Your task to perform on an android device: turn on the 24-hour format for clock Image 0: 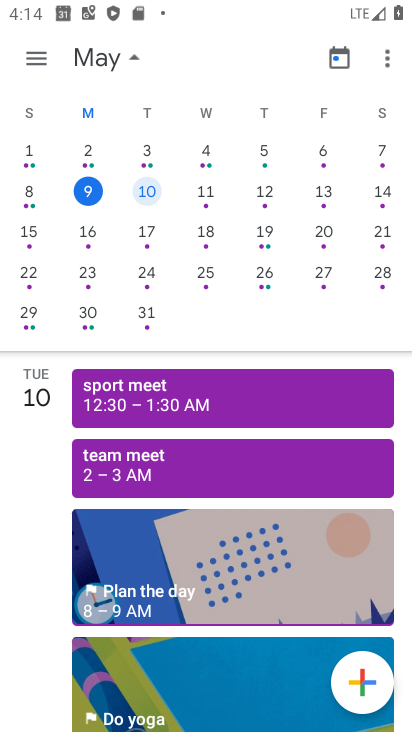
Step 0: press home button
Your task to perform on an android device: turn on the 24-hour format for clock Image 1: 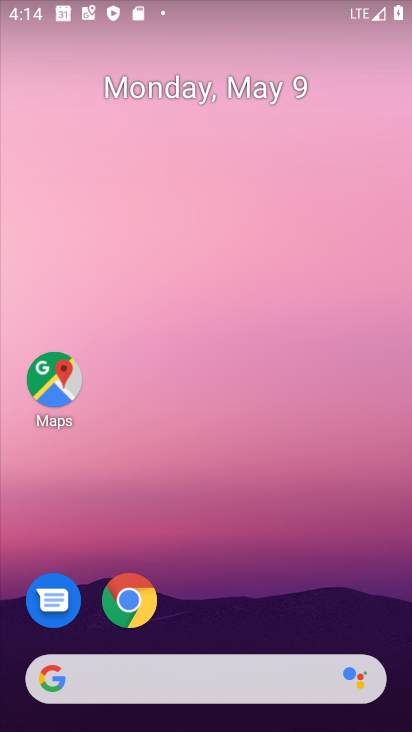
Step 1: drag from (284, 635) to (211, 39)
Your task to perform on an android device: turn on the 24-hour format for clock Image 2: 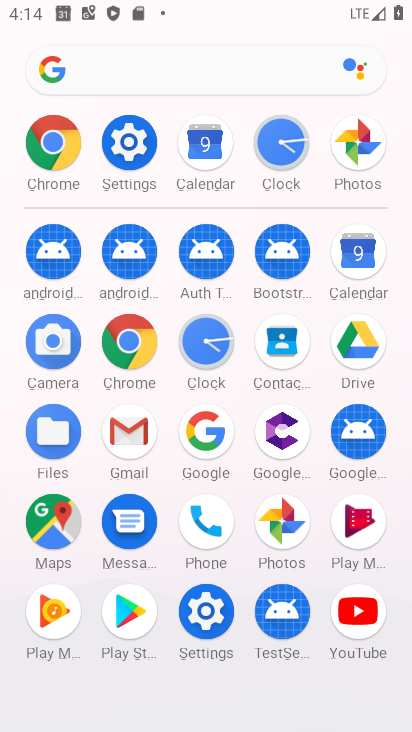
Step 2: click (204, 342)
Your task to perform on an android device: turn on the 24-hour format for clock Image 3: 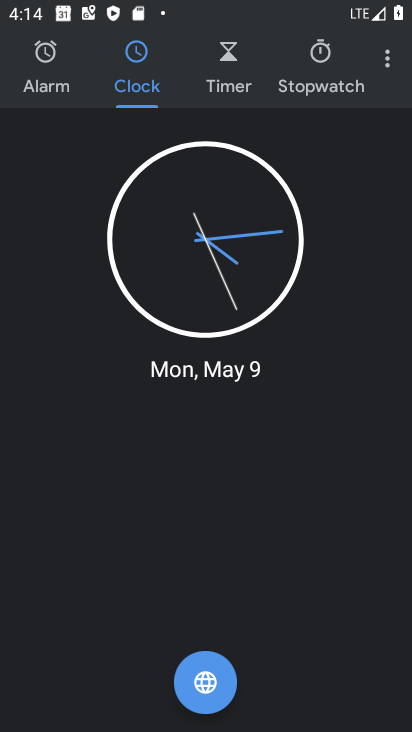
Step 3: click (387, 65)
Your task to perform on an android device: turn on the 24-hour format for clock Image 4: 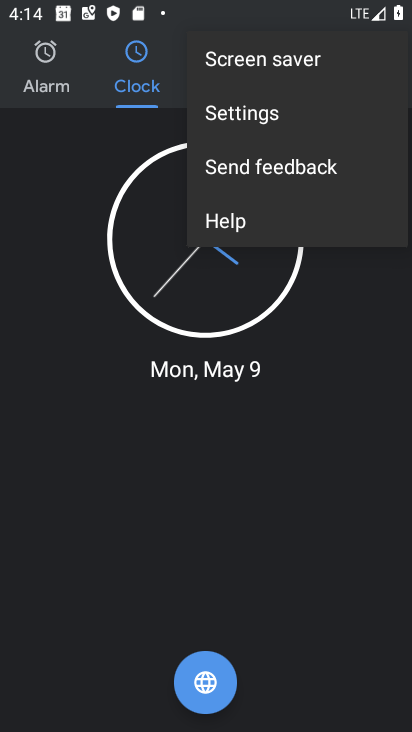
Step 4: click (257, 123)
Your task to perform on an android device: turn on the 24-hour format for clock Image 5: 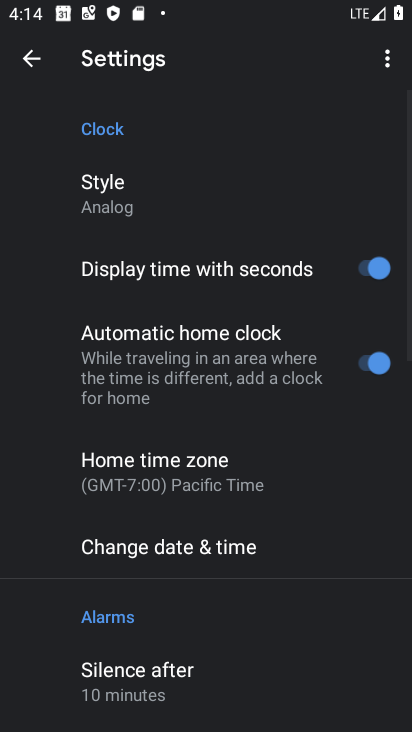
Step 5: click (206, 544)
Your task to perform on an android device: turn on the 24-hour format for clock Image 6: 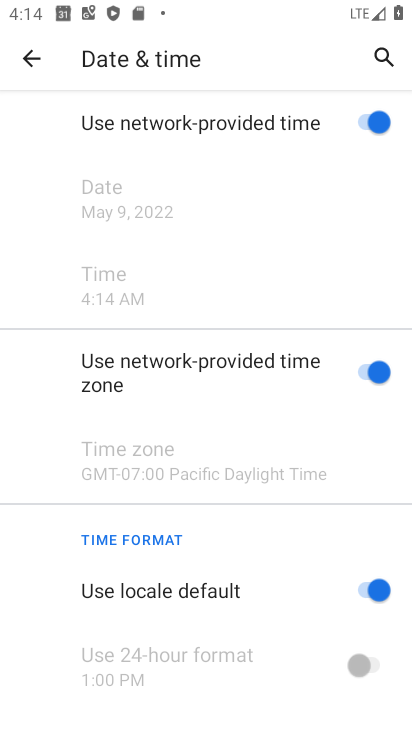
Step 6: drag from (280, 670) to (242, 185)
Your task to perform on an android device: turn on the 24-hour format for clock Image 7: 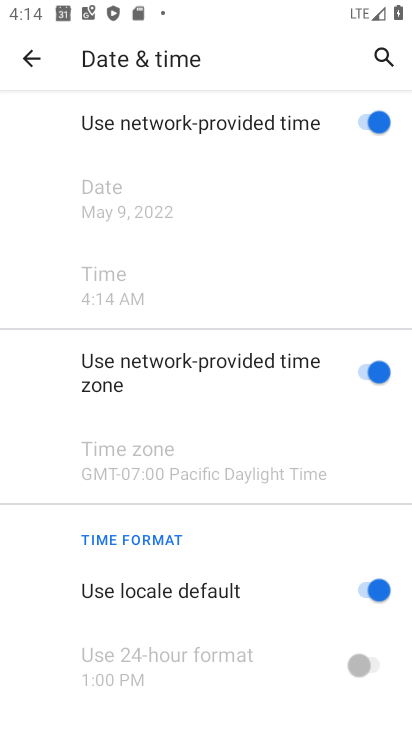
Step 7: drag from (233, 221) to (241, 679)
Your task to perform on an android device: turn on the 24-hour format for clock Image 8: 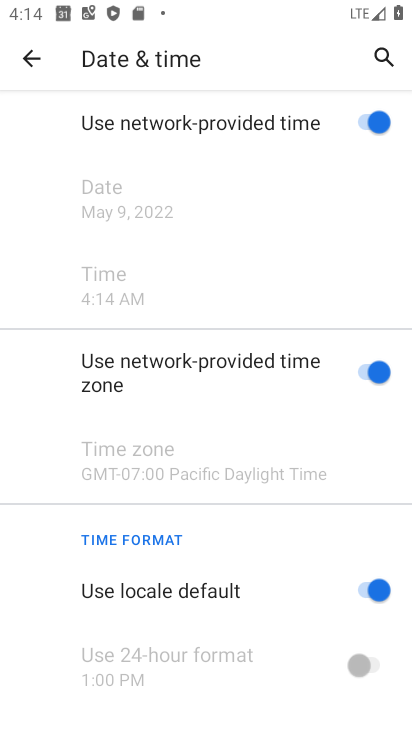
Step 8: drag from (206, 672) to (180, 155)
Your task to perform on an android device: turn on the 24-hour format for clock Image 9: 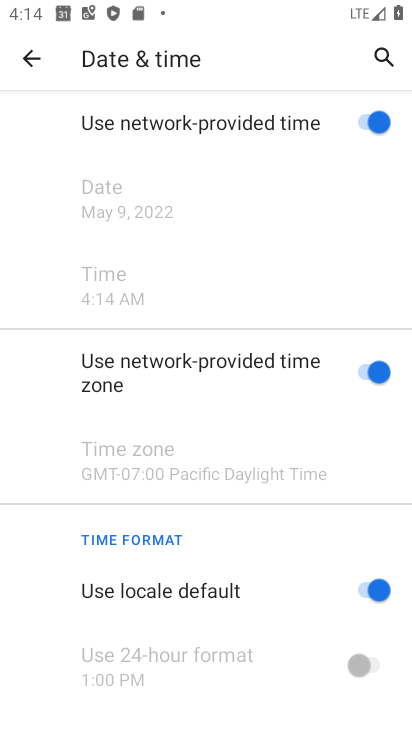
Step 9: drag from (167, 169) to (175, 652)
Your task to perform on an android device: turn on the 24-hour format for clock Image 10: 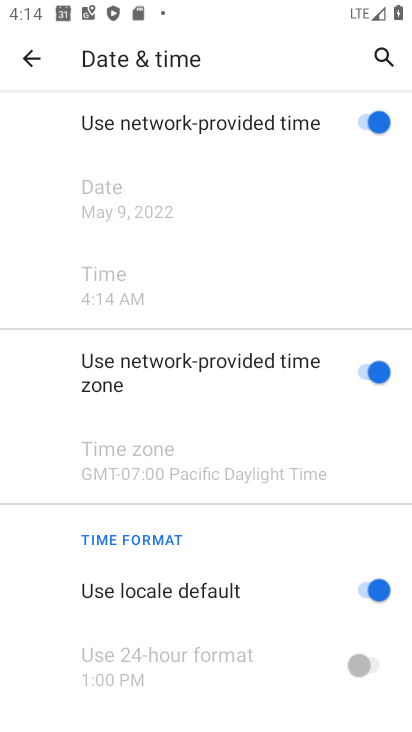
Step 10: click (368, 594)
Your task to perform on an android device: turn on the 24-hour format for clock Image 11: 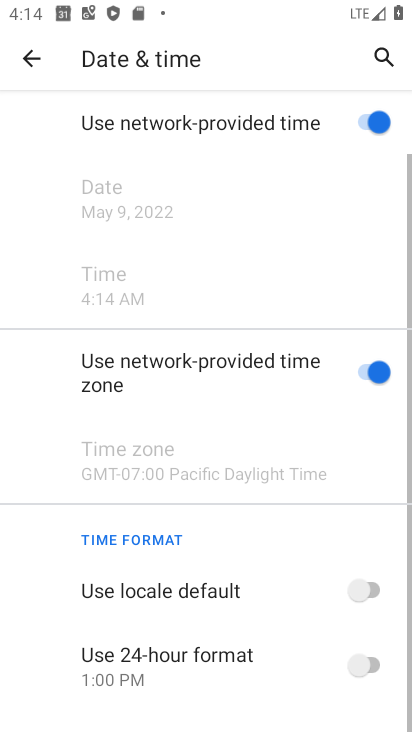
Step 11: click (367, 663)
Your task to perform on an android device: turn on the 24-hour format for clock Image 12: 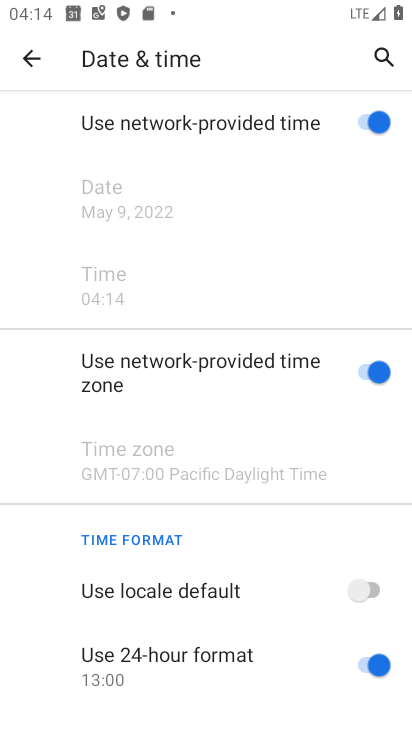
Step 12: task complete